Your task to perform on an android device: turn off location history Image 0: 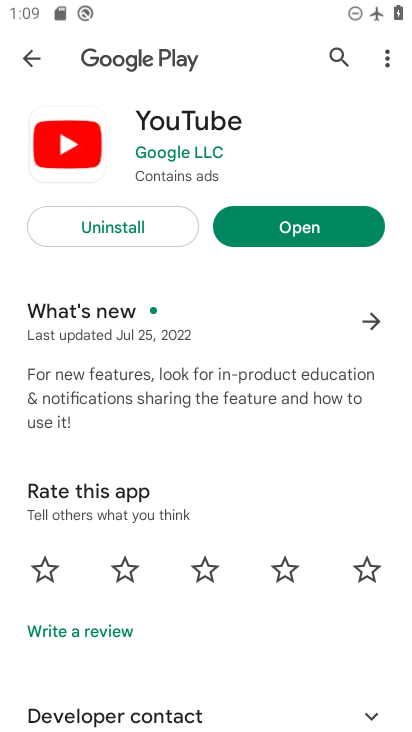
Step 0: press home button
Your task to perform on an android device: turn off location history Image 1: 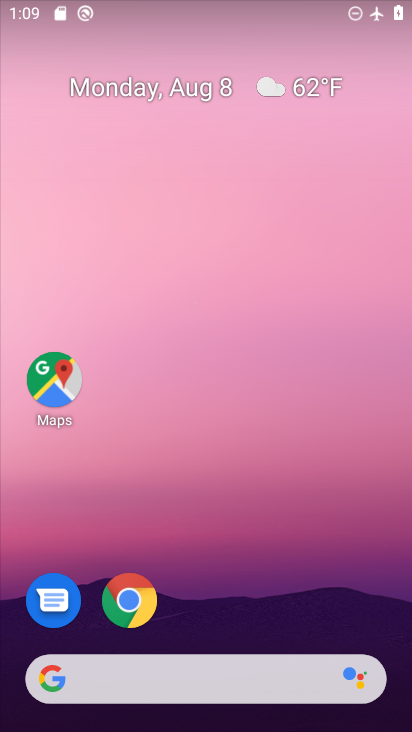
Step 1: drag from (233, 596) to (233, 202)
Your task to perform on an android device: turn off location history Image 2: 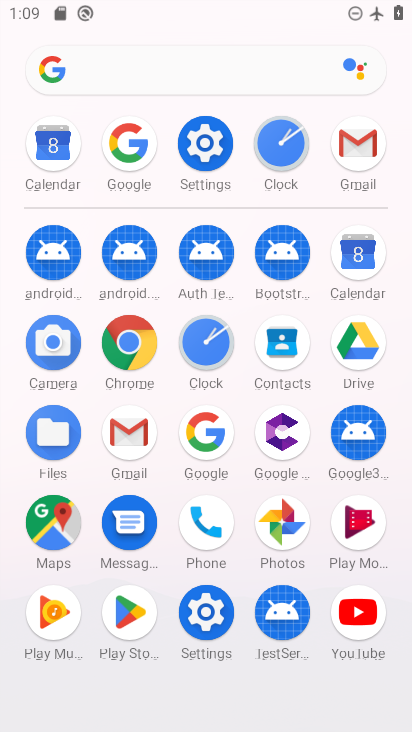
Step 2: click (209, 142)
Your task to perform on an android device: turn off location history Image 3: 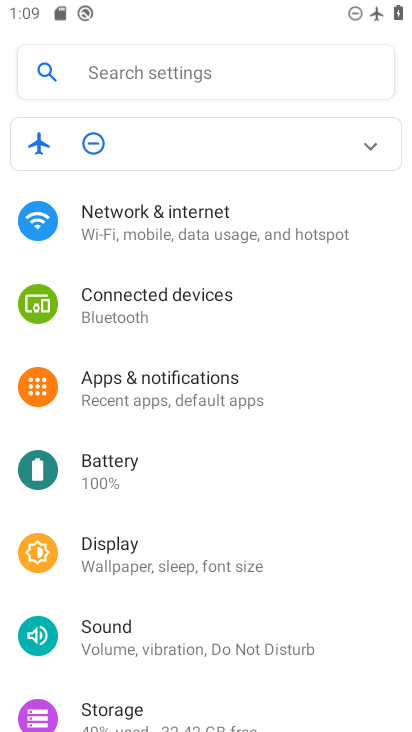
Step 3: drag from (206, 625) to (280, 280)
Your task to perform on an android device: turn off location history Image 4: 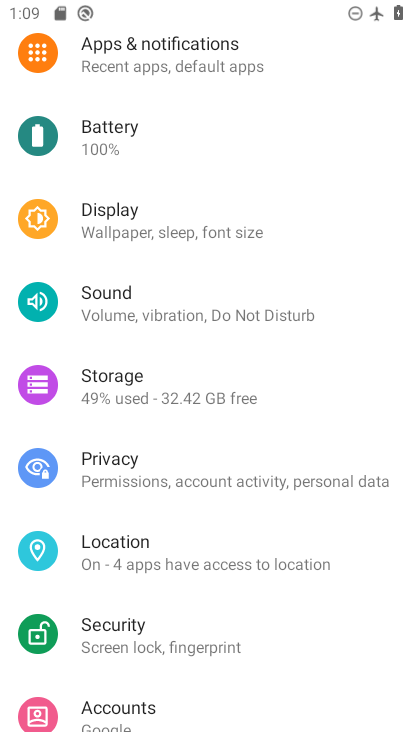
Step 4: click (199, 549)
Your task to perform on an android device: turn off location history Image 5: 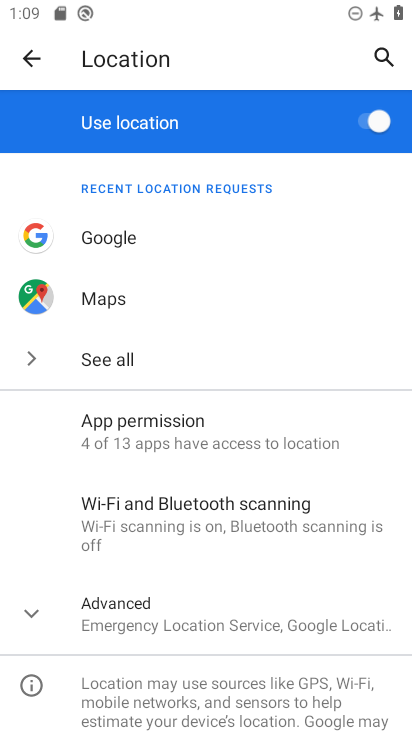
Step 5: drag from (240, 640) to (256, 301)
Your task to perform on an android device: turn off location history Image 6: 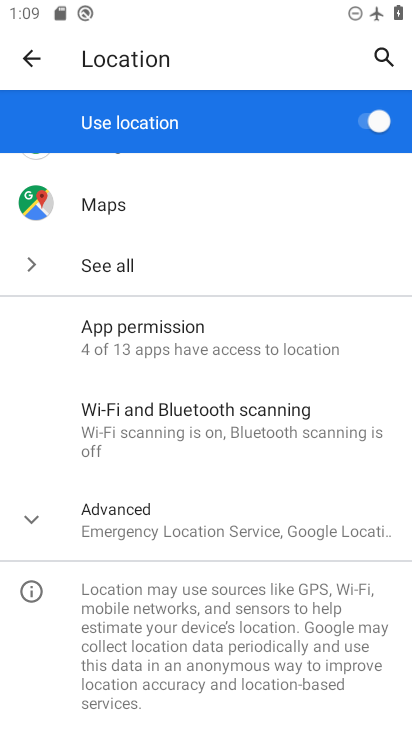
Step 6: click (162, 522)
Your task to perform on an android device: turn off location history Image 7: 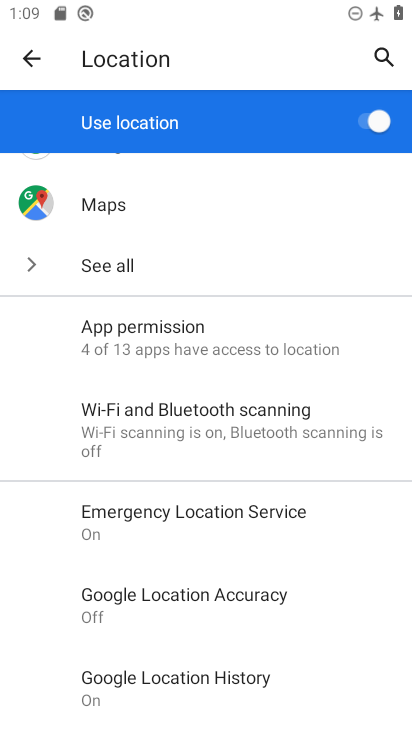
Step 7: click (258, 673)
Your task to perform on an android device: turn off location history Image 8: 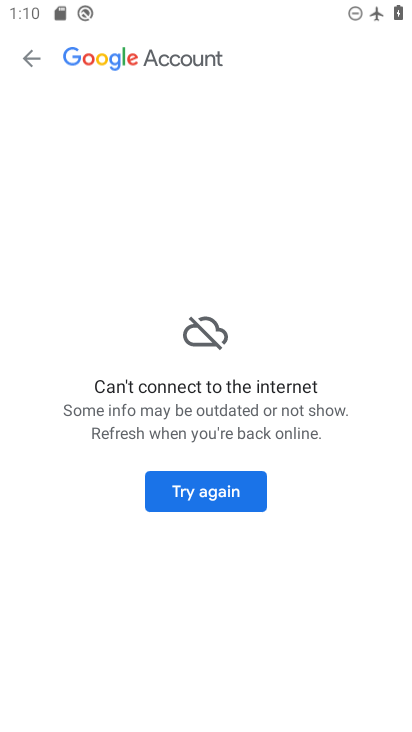
Step 8: task complete